Your task to perform on an android device: turn vacation reply on in the gmail app Image 0: 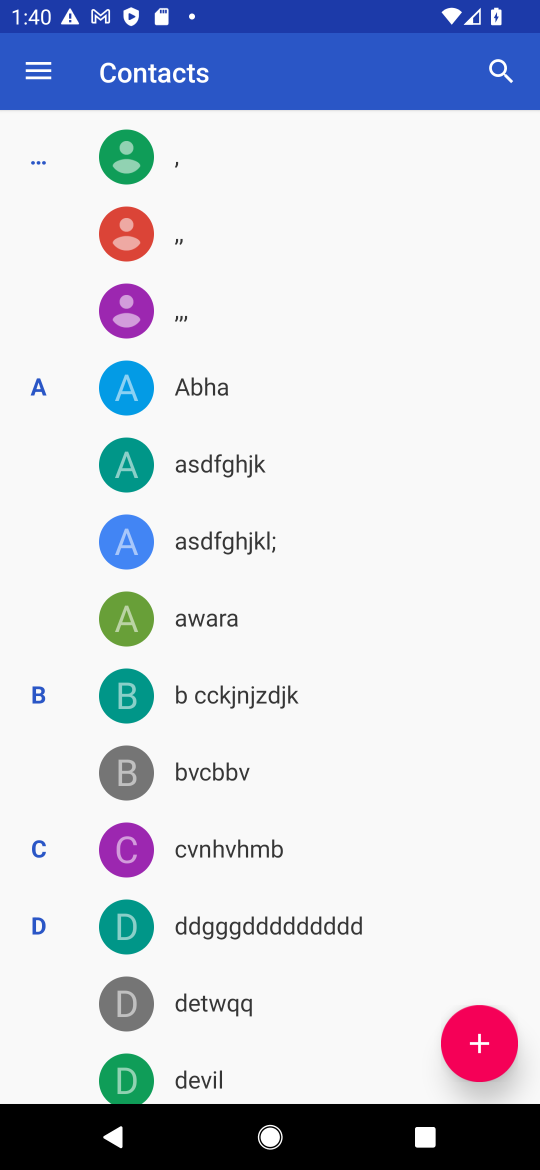
Step 0: press home button
Your task to perform on an android device: turn vacation reply on in the gmail app Image 1: 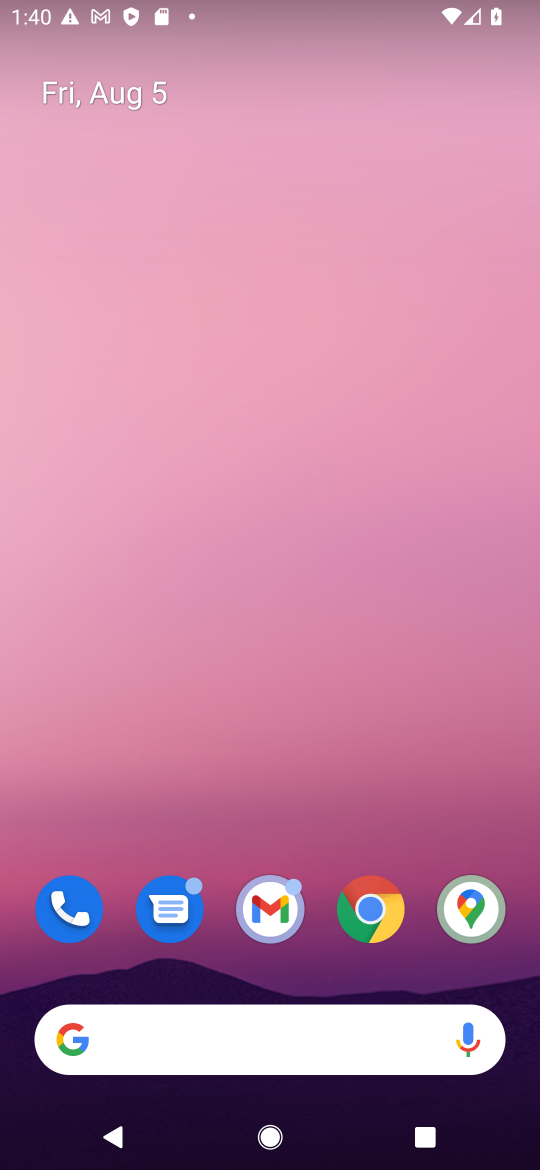
Step 1: click (282, 908)
Your task to perform on an android device: turn vacation reply on in the gmail app Image 2: 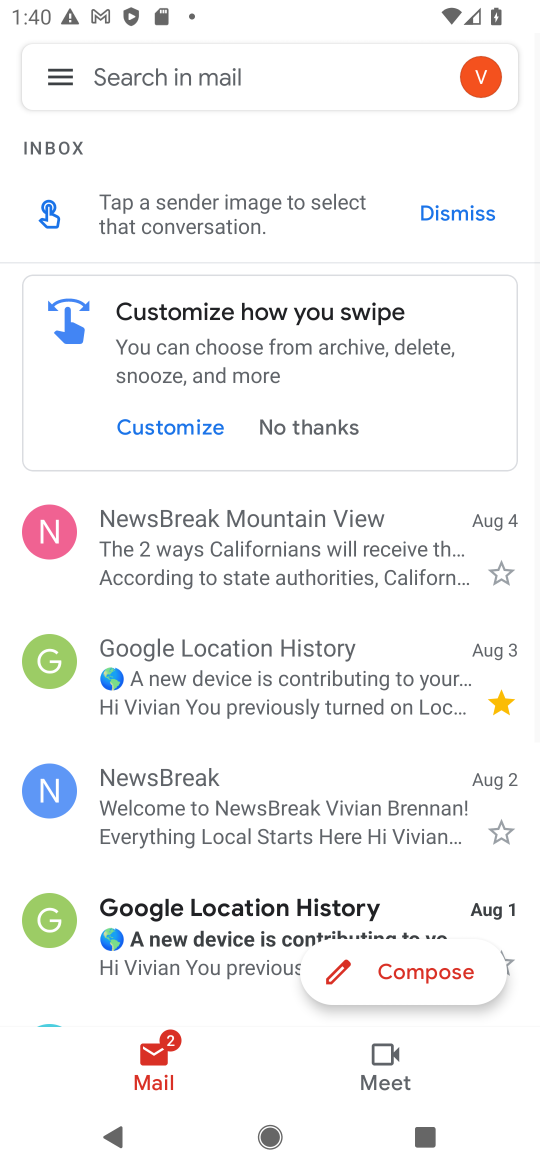
Step 2: click (52, 69)
Your task to perform on an android device: turn vacation reply on in the gmail app Image 3: 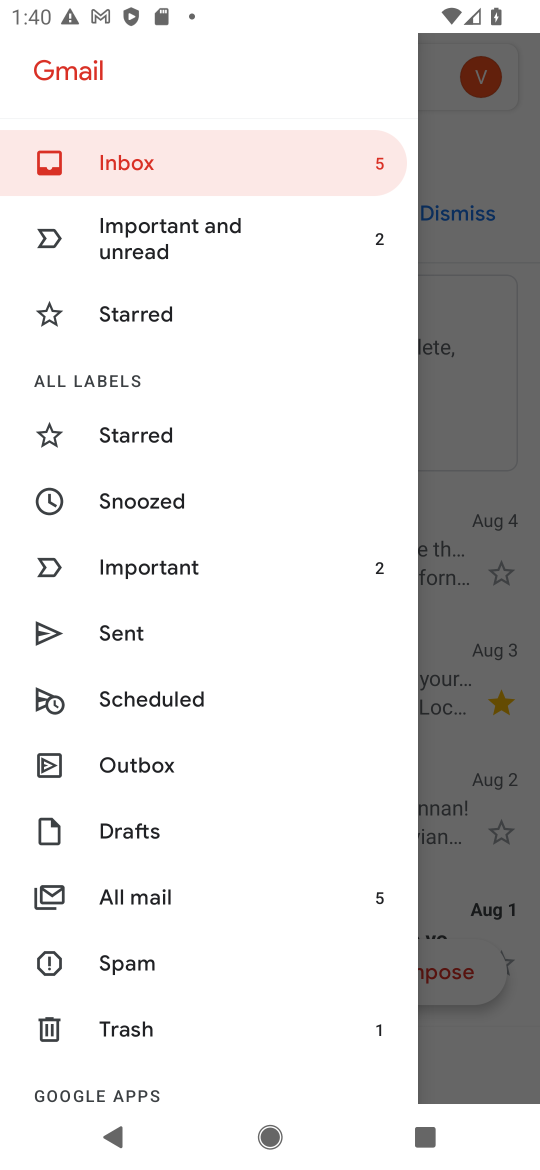
Step 3: drag from (191, 995) to (239, 368)
Your task to perform on an android device: turn vacation reply on in the gmail app Image 4: 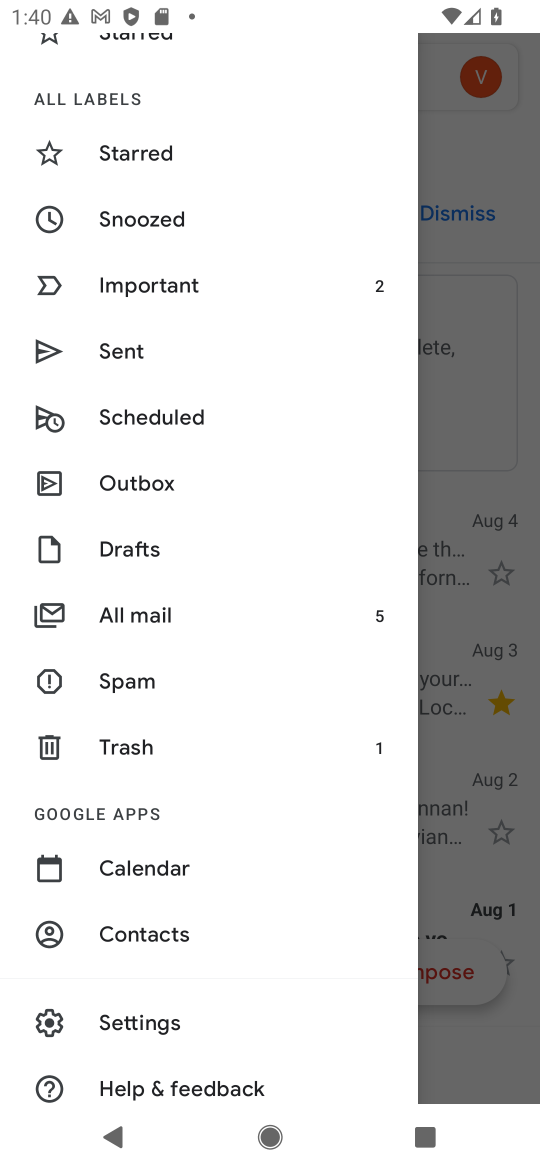
Step 4: click (143, 1019)
Your task to perform on an android device: turn vacation reply on in the gmail app Image 5: 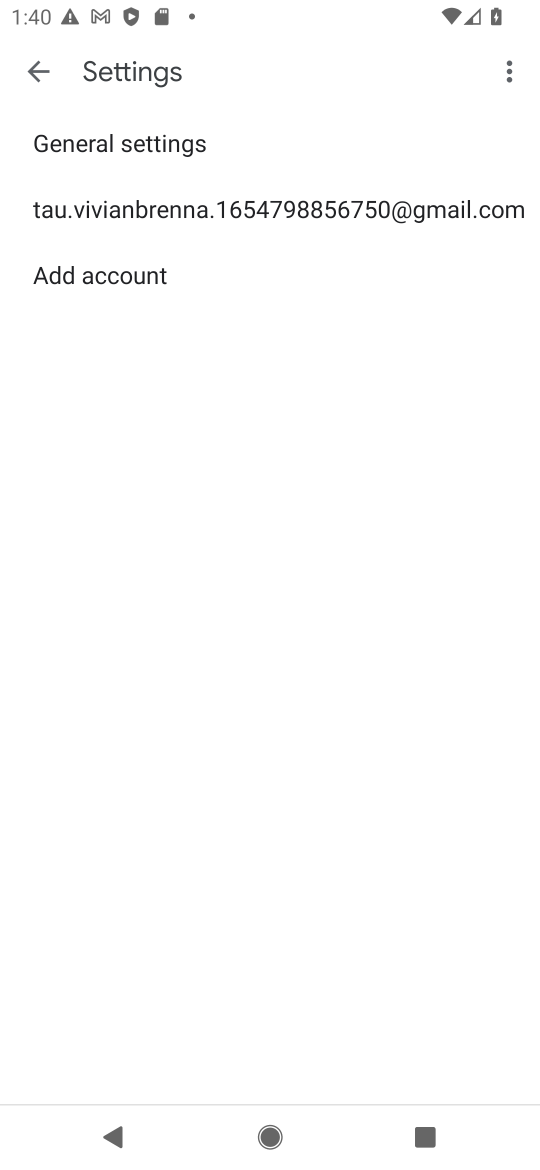
Step 5: click (172, 206)
Your task to perform on an android device: turn vacation reply on in the gmail app Image 6: 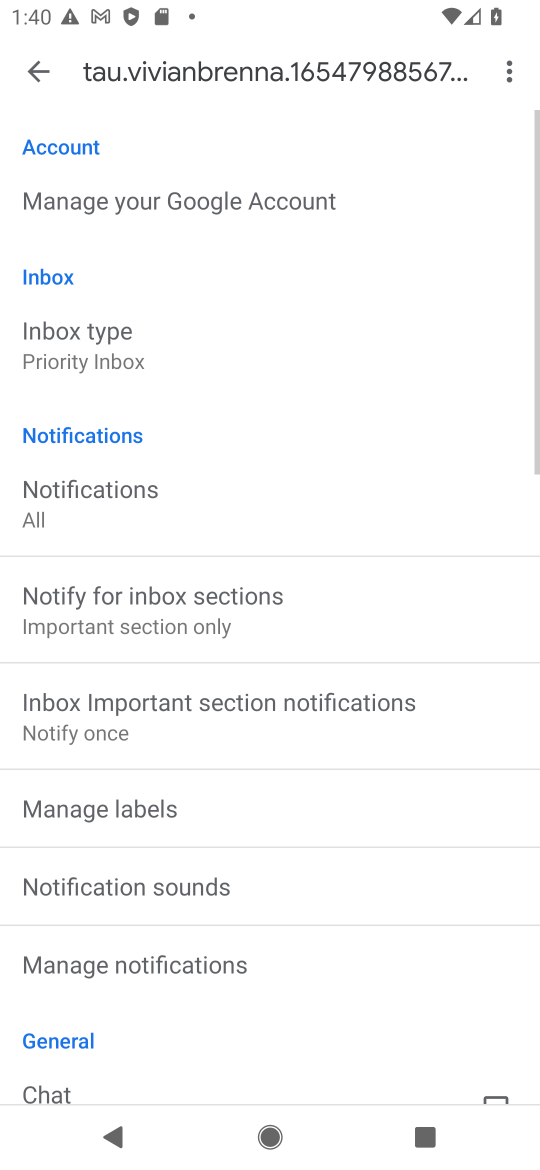
Step 6: drag from (295, 880) to (369, 4)
Your task to perform on an android device: turn vacation reply on in the gmail app Image 7: 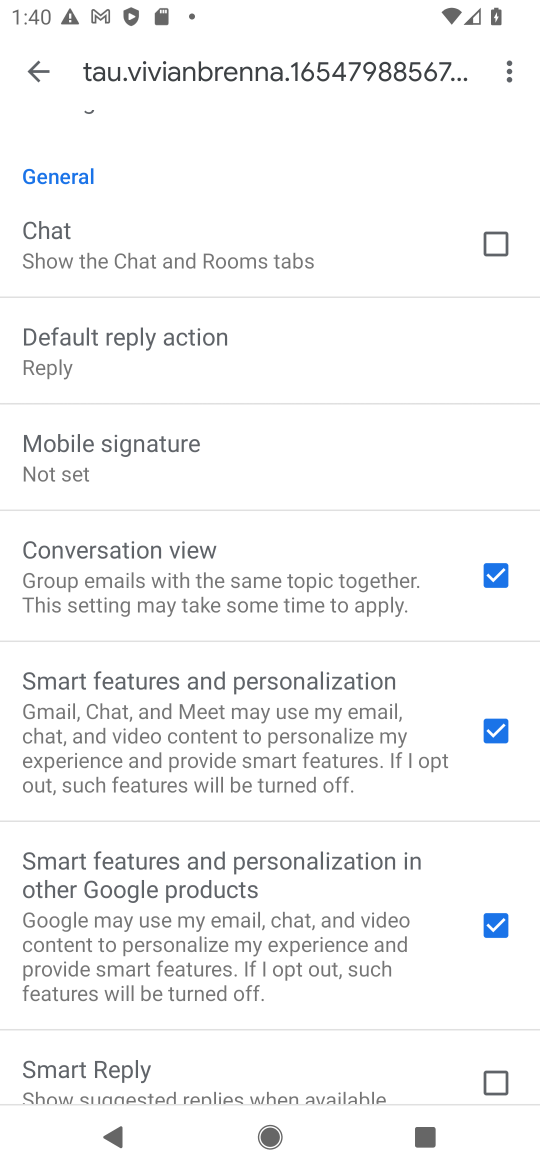
Step 7: drag from (293, 1056) to (245, 350)
Your task to perform on an android device: turn vacation reply on in the gmail app Image 8: 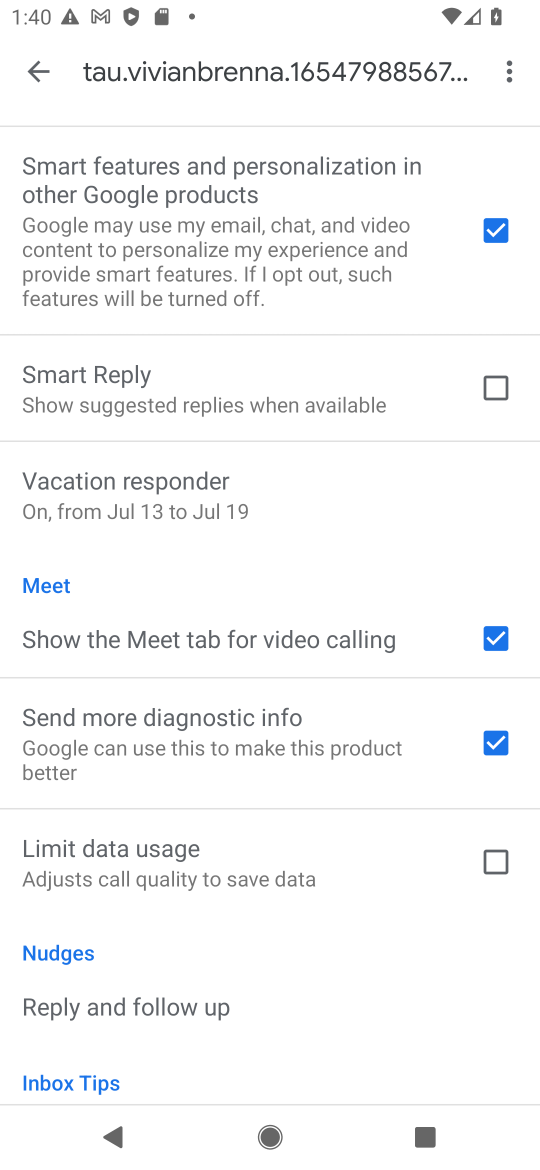
Step 8: click (108, 474)
Your task to perform on an android device: turn vacation reply on in the gmail app Image 9: 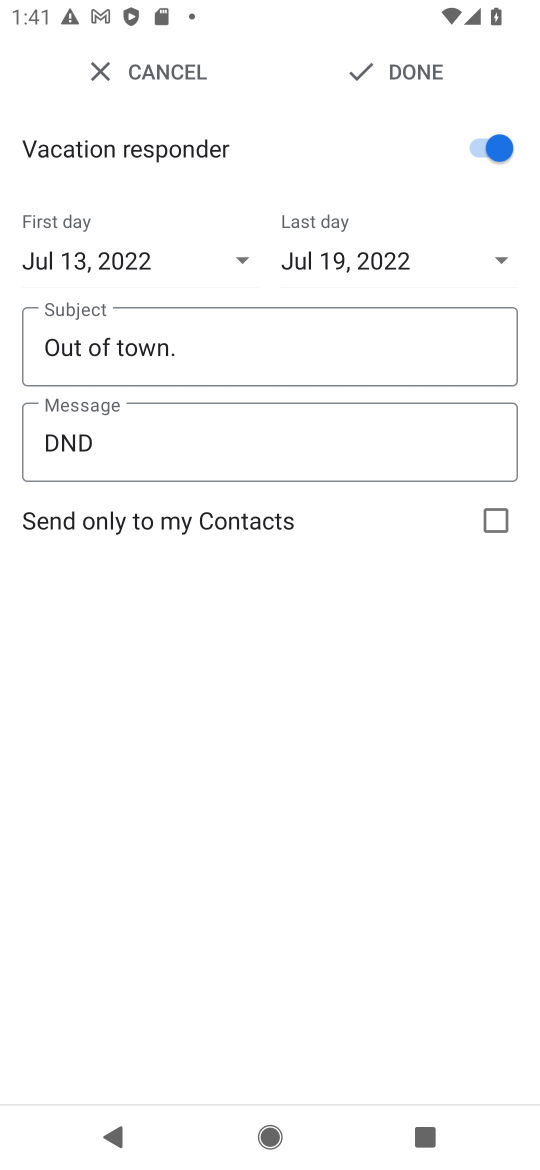
Step 9: task complete